Your task to perform on an android device: Open Google Chrome Image 0: 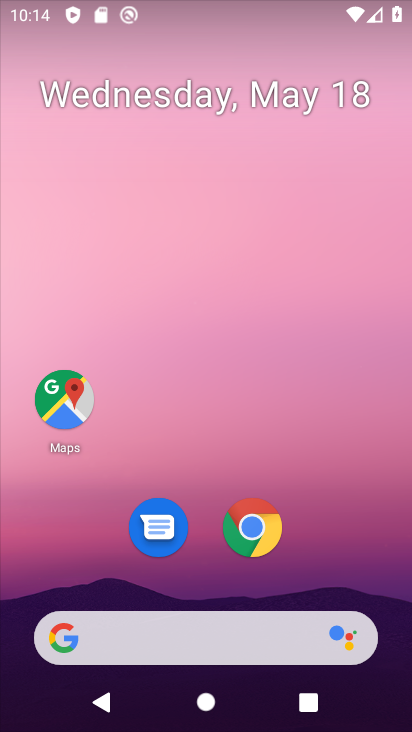
Step 0: click (82, 403)
Your task to perform on an android device: Open Google Chrome Image 1: 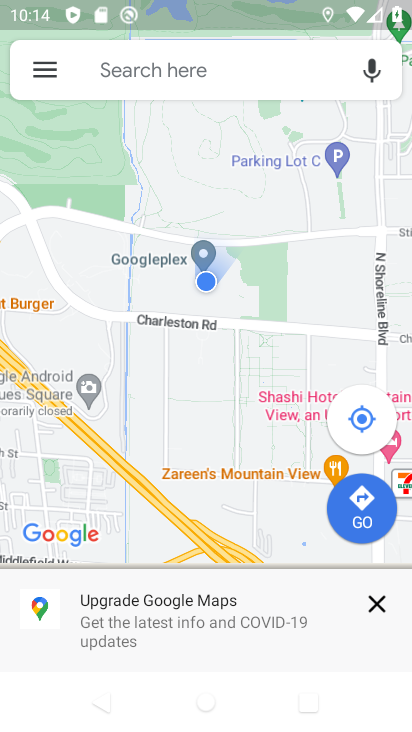
Step 1: press home button
Your task to perform on an android device: Open Google Chrome Image 2: 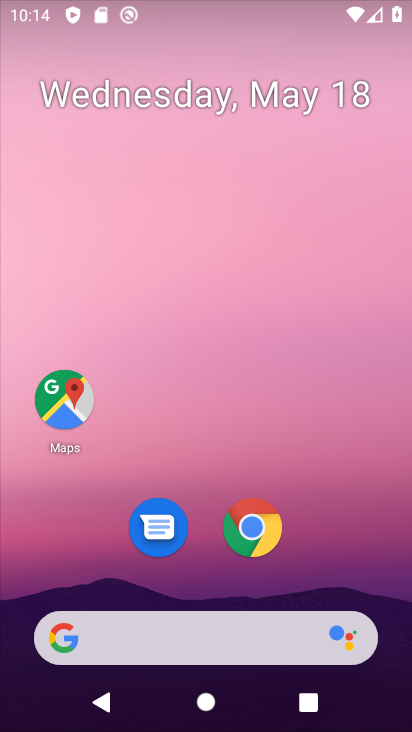
Step 2: click (260, 519)
Your task to perform on an android device: Open Google Chrome Image 3: 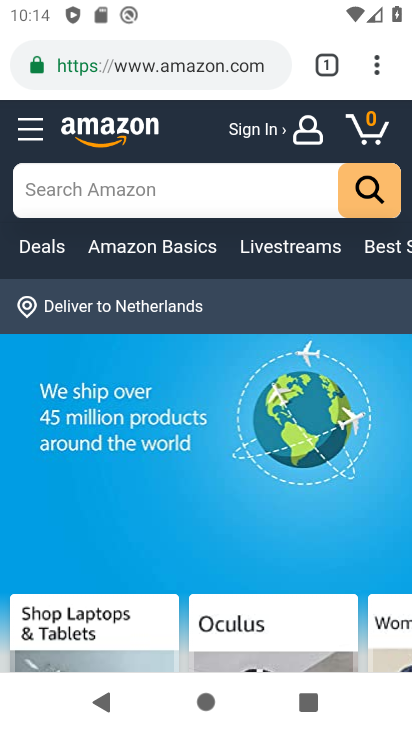
Step 3: task complete